Your task to perform on an android device: Open Chrome and go to the settings page Image 0: 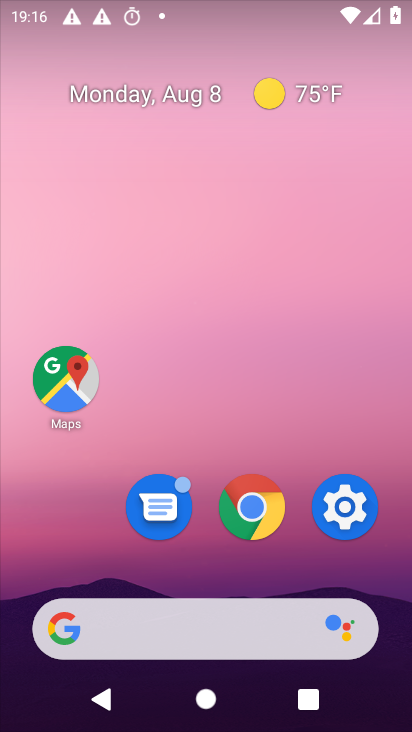
Step 0: drag from (273, 669) to (260, 102)
Your task to perform on an android device: Open Chrome and go to the settings page Image 1: 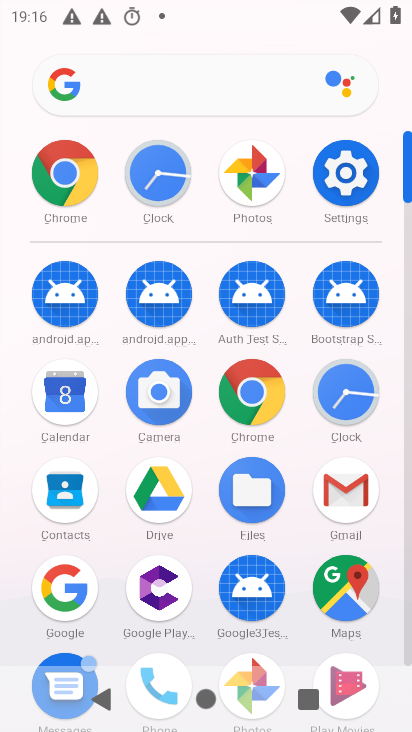
Step 1: click (85, 189)
Your task to perform on an android device: Open Chrome and go to the settings page Image 2: 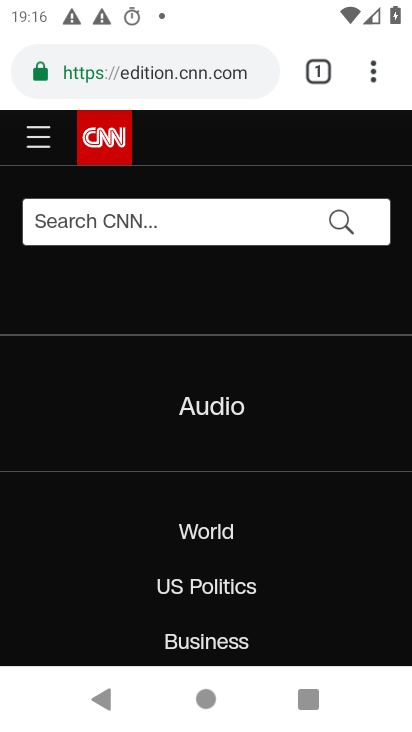
Step 2: click (377, 78)
Your task to perform on an android device: Open Chrome and go to the settings page Image 3: 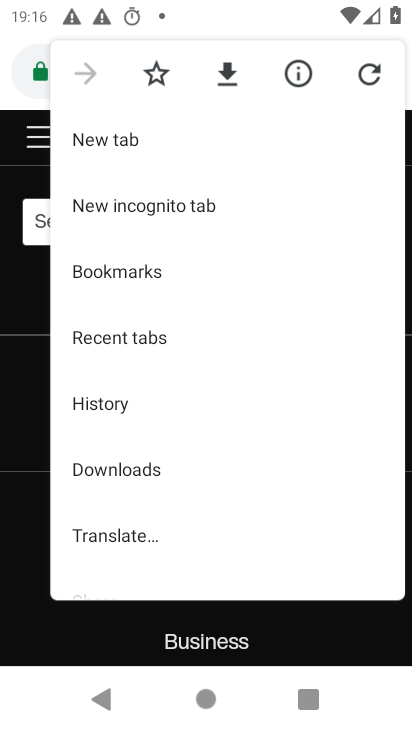
Step 3: drag from (130, 503) to (151, 311)
Your task to perform on an android device: Open Chrome and go to the settings page Image 4: 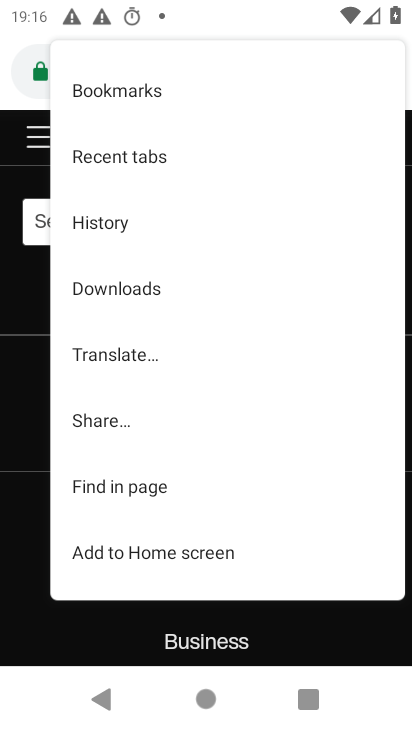
Step 4: drag from (173, 452) to (217, 262)
Your task to perform on an android device: Open Chrome and go to the settings page Image 5: 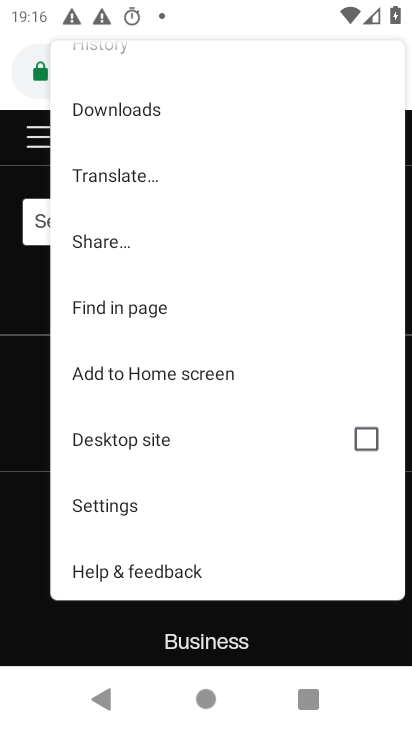
Step 5: click (111, 498)
Your task to perform on an android device: Open Chrome and go to the settings page Image 6: 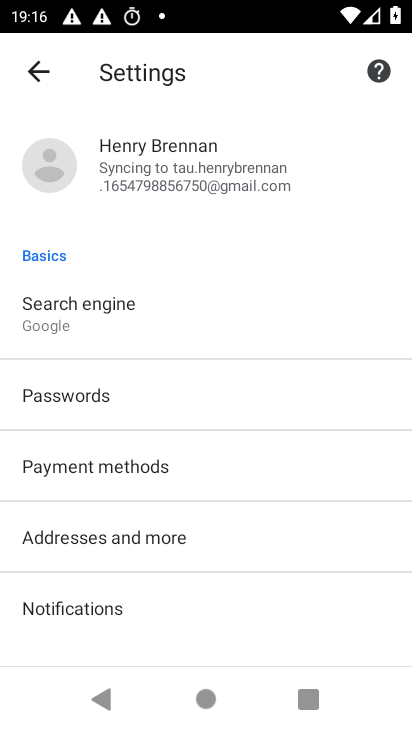
Step 6: task complete